Your task to perform on an android device: Search for Italian restaurants on Maps Image 0: 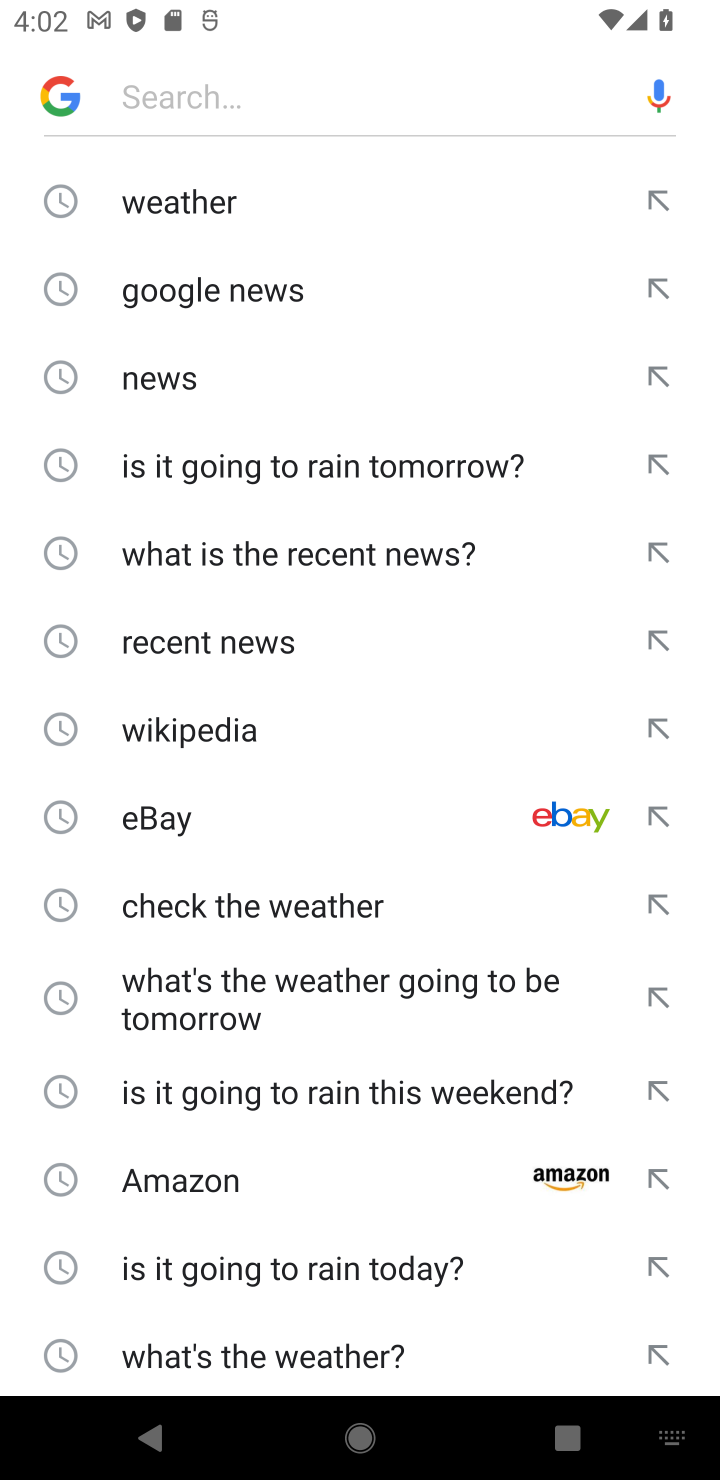
Step 0: task complete